Your task to perform on an android device: Go to ESPN.com Image 0: 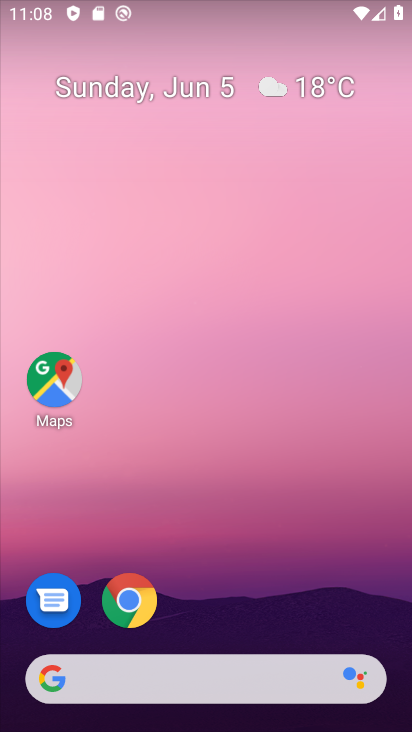
Step 0: click (118, 606)
Your task to perform on an android device: Go to ESPN.com Image 1: 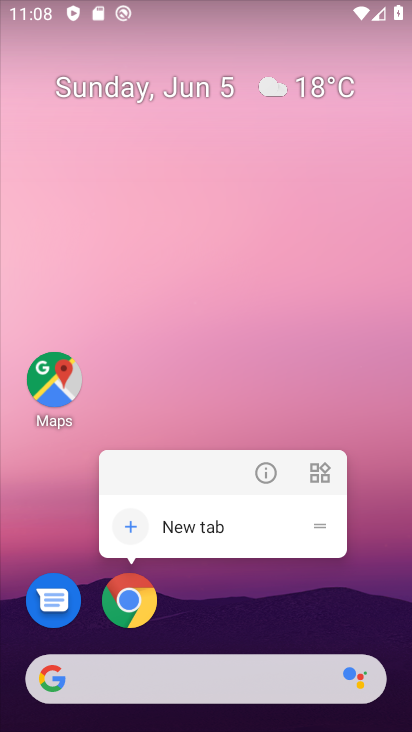
Step 1: click (119, 602)
Your task to perform on an android device: Go to ESPN.com Image 2: 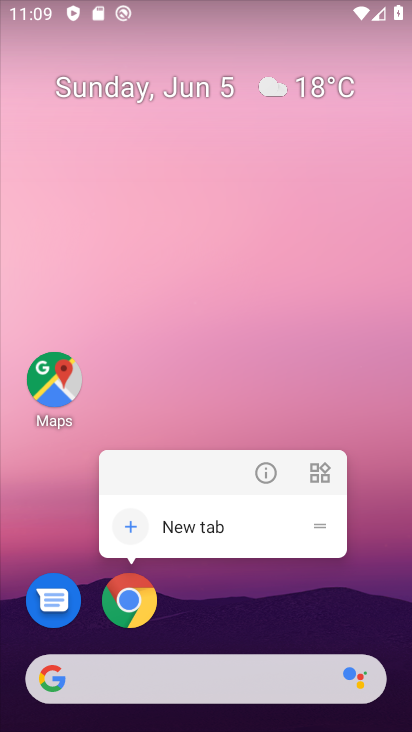
Step 2: click (122, 612)
Your task to perform on an android device: Go to ESPN.com Image 3: 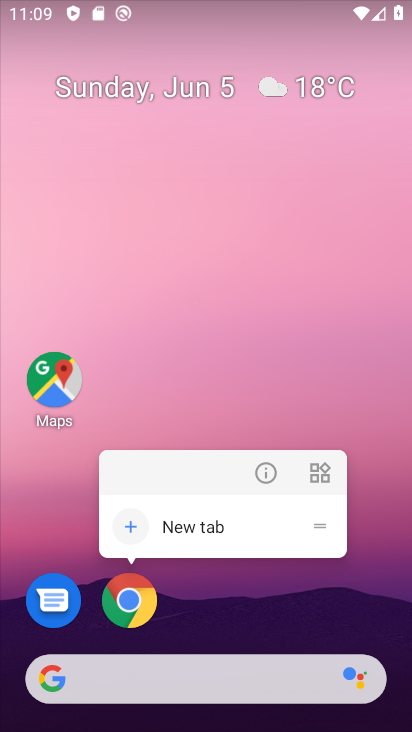
Step 3: click (159, 612)
Your task to perform on an android device: Go to ESPN.com Image 4: 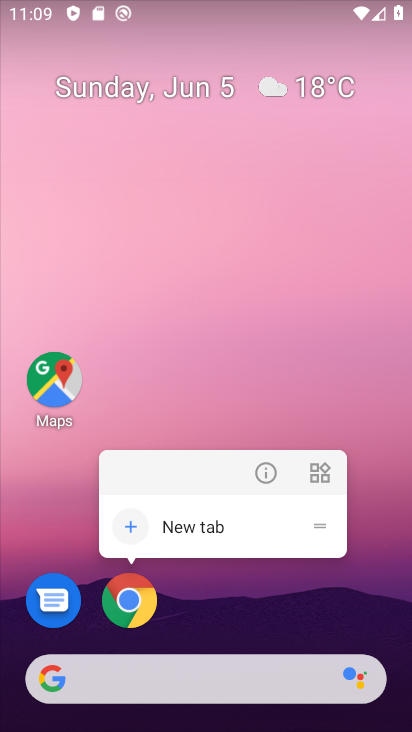
Step 4: click (140, 609)
Your task to perform on an android device: Go to ESPN.com Image 5: 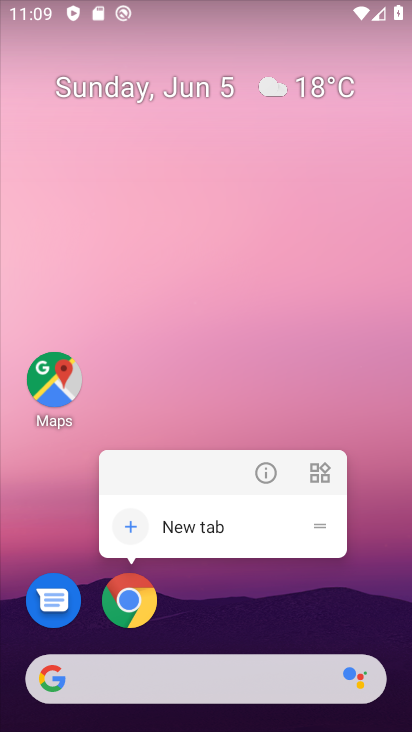
Step 5: click (140, 609)
Your task to perform on an android device: Go to ESPN.com Image 6: 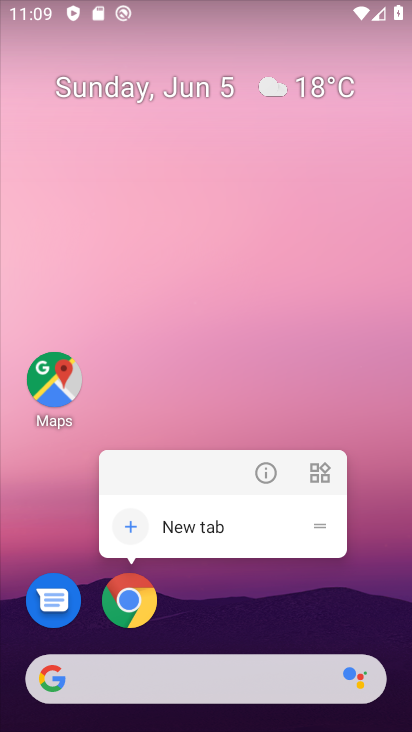
Step 6: click (134, 604)
Your task to perform on an android device: Go to ESPN.com Image 7: 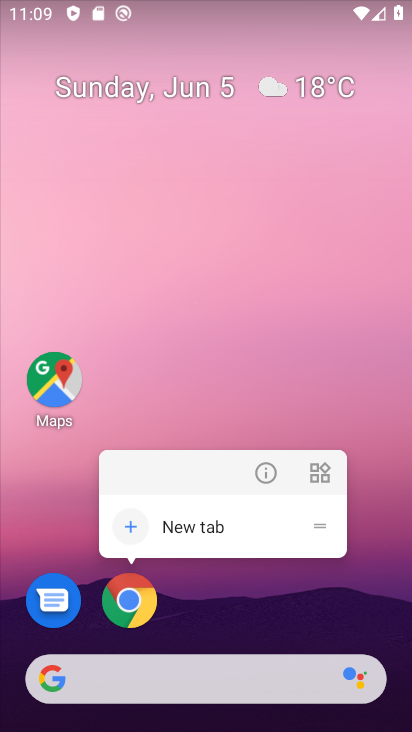
Step 7: click (133, 604)
Your task to perform on an android device: Go to ESPN.com Image 8: 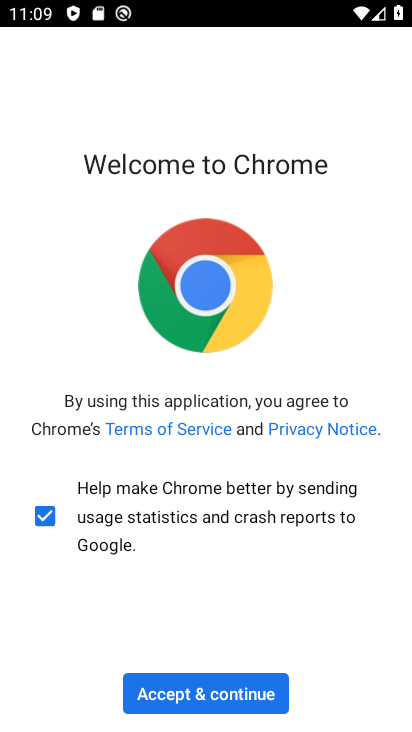
Step 8: click (220, 710)
Your task to perform on an android device: Go to ESPN.com Image 9: 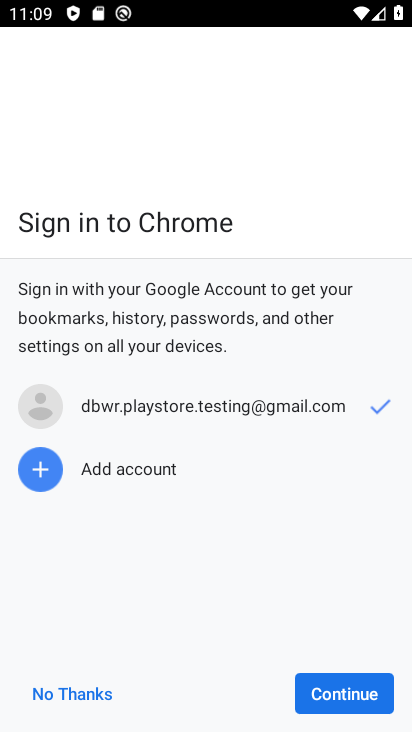
Step 9: click (360, 696)
Your task to perform on an android device: Go to ESPN.com Image 10: 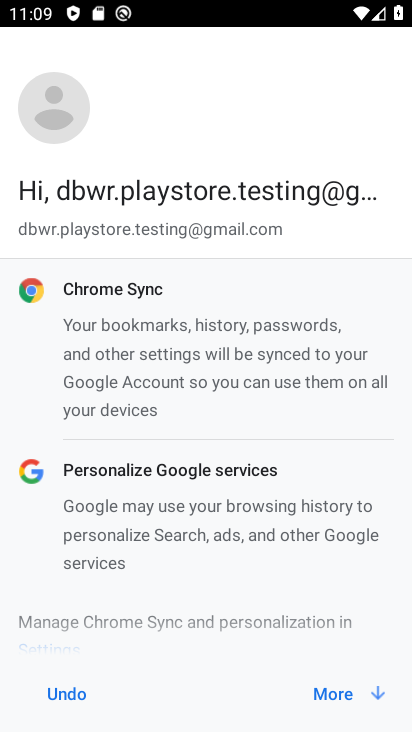
Step 10: click (366, 696)
Your task to perform on an android device: Go to ESPN.com Image 11: 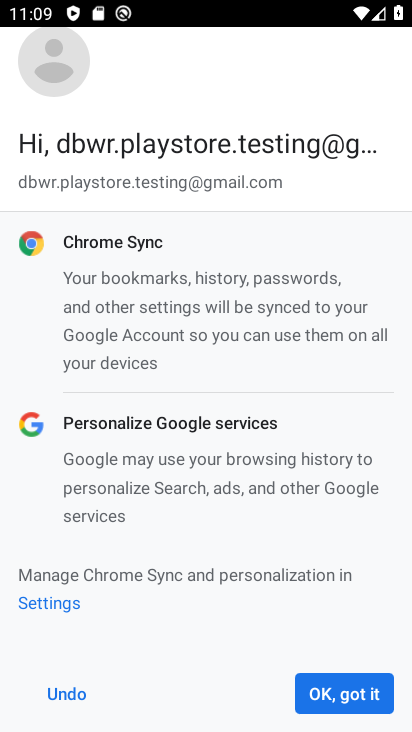
Step 11: click (364, 696)
Your task to perform on an android device: Go to ESPN.com Image 12: 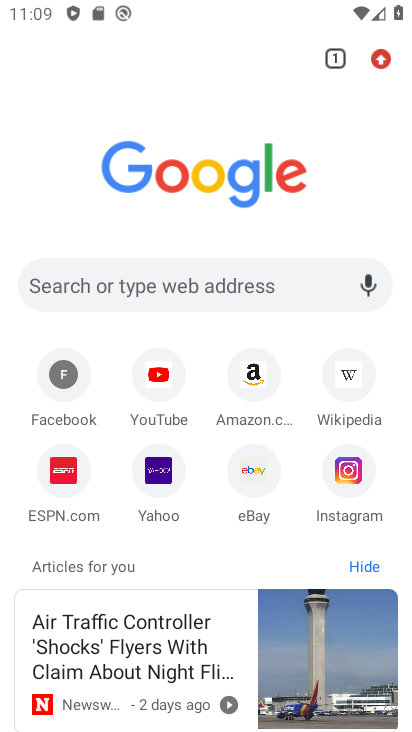
Step 12: click (71, 502)
Your task to perform on an android device: Go to ESPN.com Image 13: 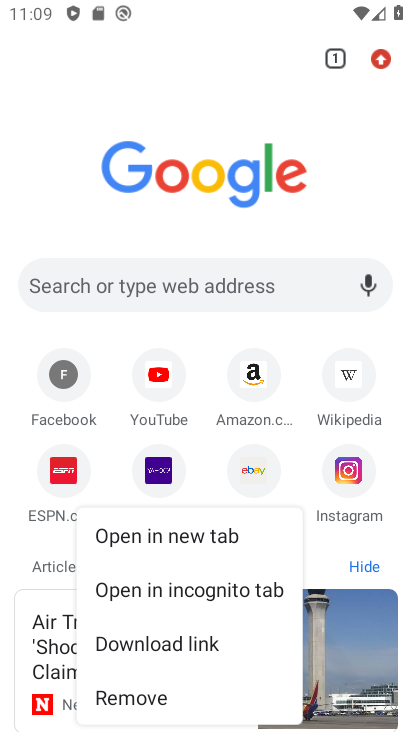
Step 13: click (59, 485)
Your task to perform on an android device: Go to ESPN.com Image 14: 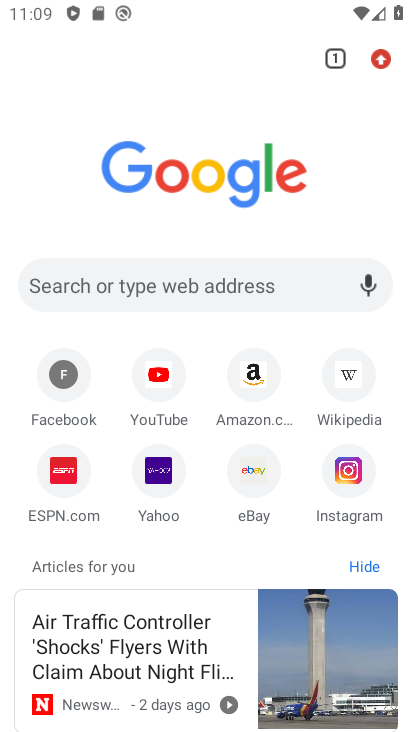
Step 14: click (67, 476)
Your task to perform on an android device: Go to ESPN.com Image 15: 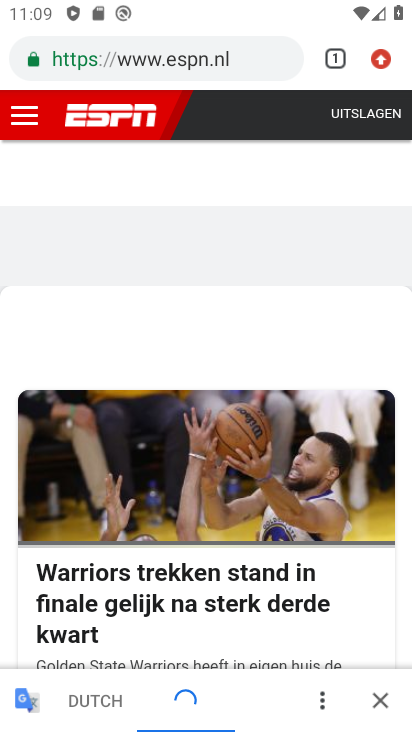
Step 15: task complete